Your task to perform on an android device: turn off notifications settings in the gmail app Image 0: 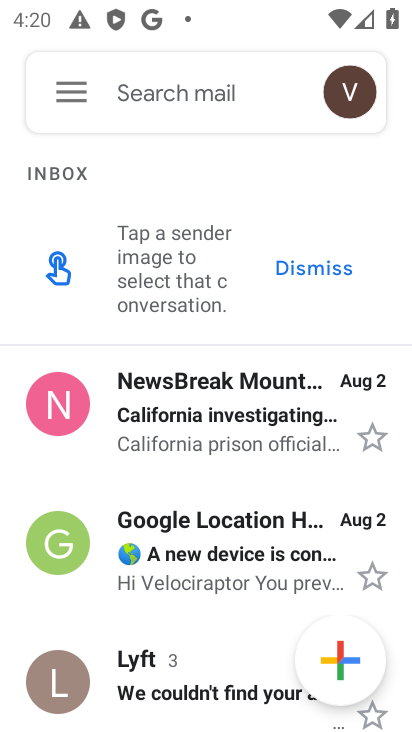
Step 0: press home button
Your task to perform on an android device: turn off notifications settings in the gmail app Image 1: 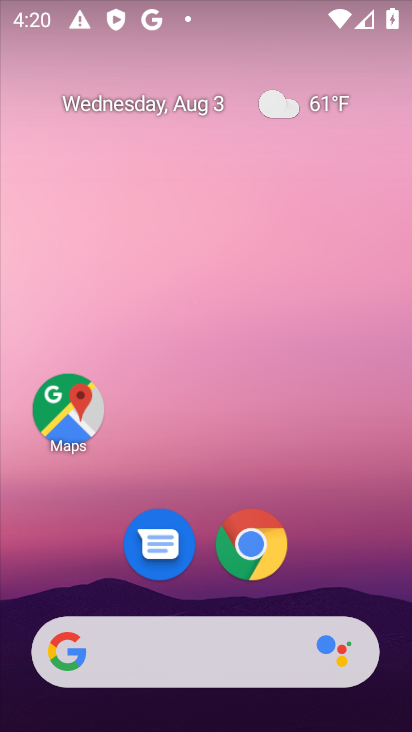
Step 1: drag from (366, 578) to (334, 55)
Your task to perform on an android device: turn off notifications settings in the gmail app Image 2: 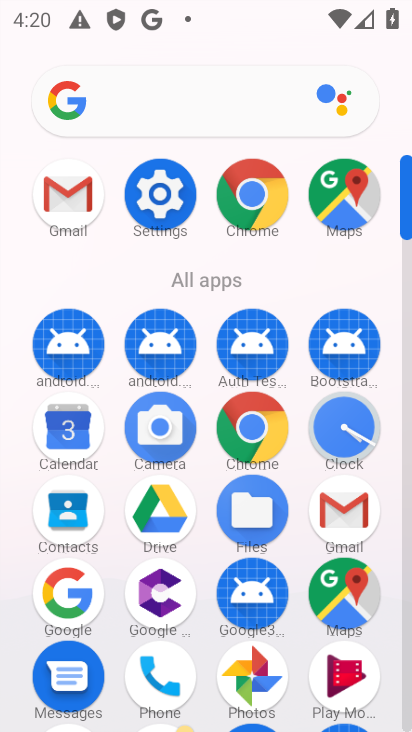
Step 2: click (342, 510)
Your task to perform on an android device: turn off notifications settings in the gmail app Image 3: 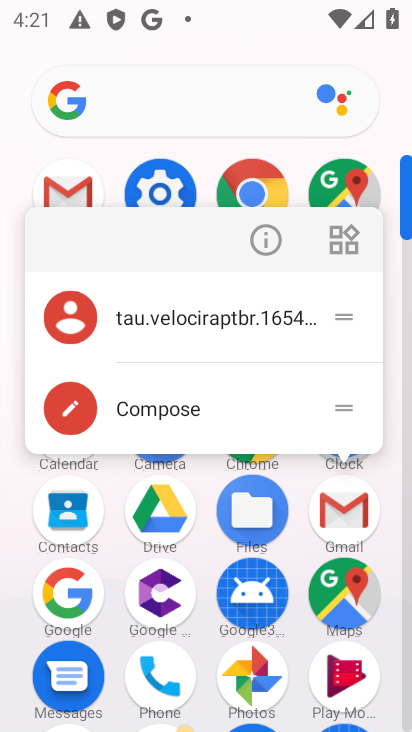
Step 3: click (262, 236)
Your task to perform on an android device: turn off notifications settings in the gmail app Image 4: 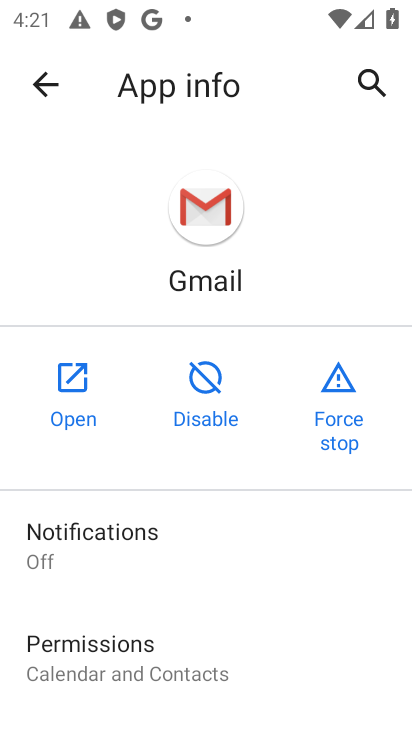
Step 4: task complete